Your task to perform on an android device: Show me the alarms in the clock app Image 0: 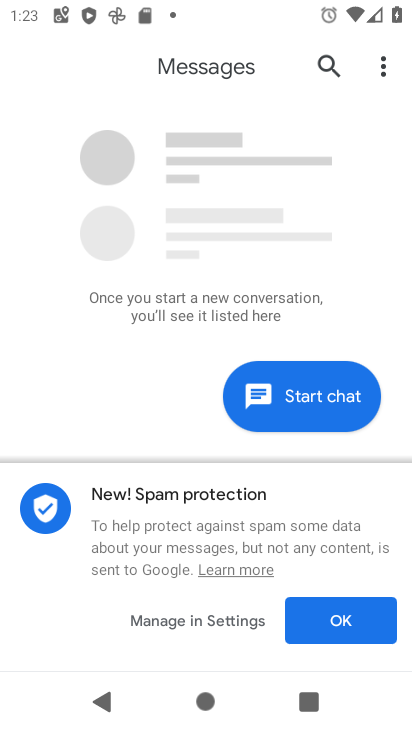
Step 0: press home button
Your task to perform on an android device: Show me the alarms in the clock app Image 1: 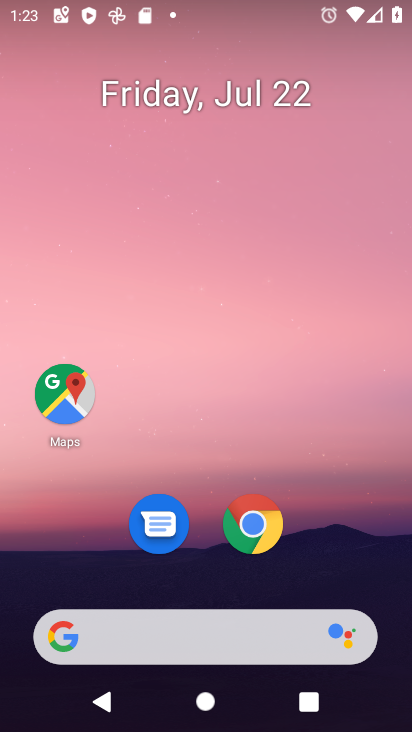
Step 1: drag from (229, 628) to (331, 37)
Your task to perform on an android device: Show me the alarms in the clock app Image 2: 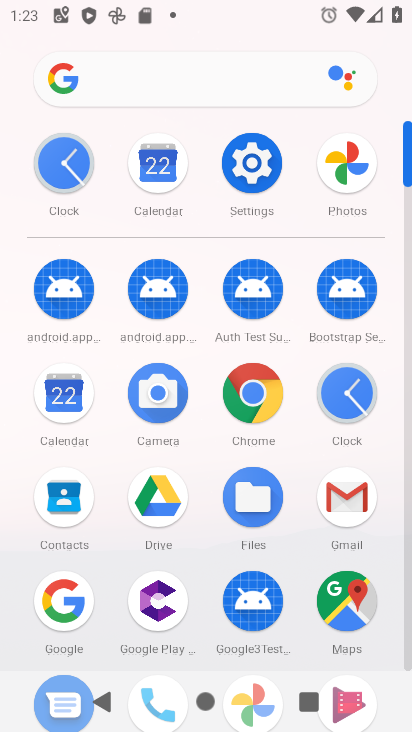
Step 2: click (346, 403)
Your task to perform on an android device: Show me the alarms in the clock app Image 3: 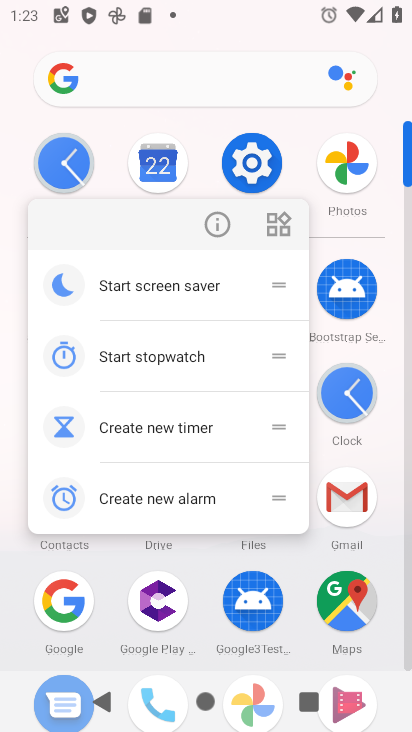
Step 3: click (346, 403)
Your task to perform on an android device: Show me the alarms in the clock app Image 4: 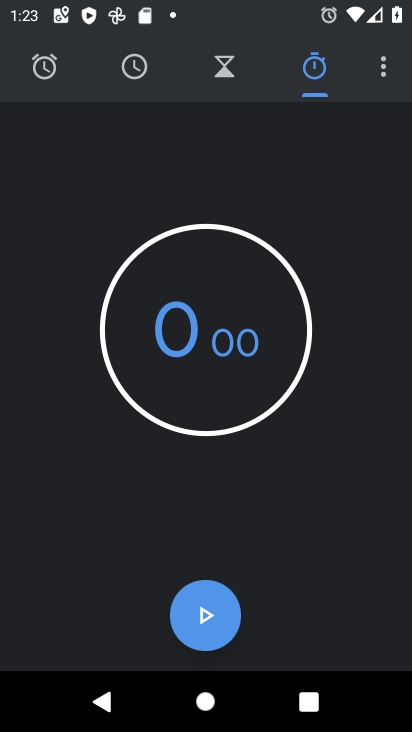
Step 4: click (47, 69)
Your task to perform on an android device: Show me the alarms in the clock app Image 5: 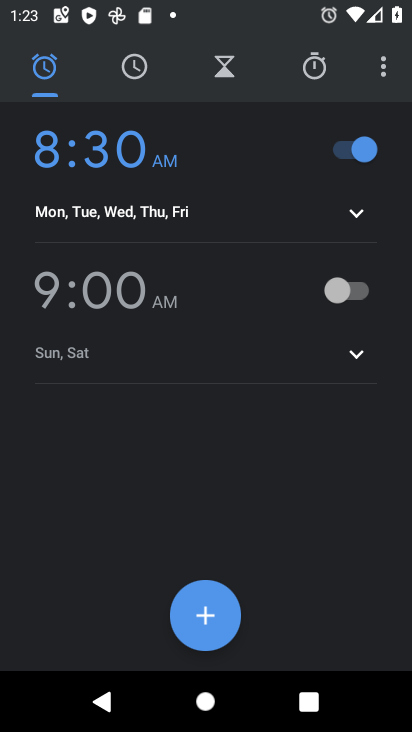
Step 5: task complete